Your task to perform on an android device: Toggle the flashlight Image 0: 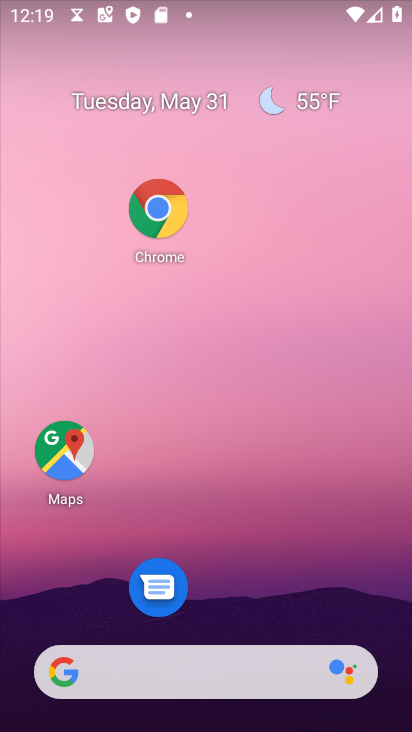
Step 0: click (242, 179)
Your task to perform on an android device: Toggle the flashlight Image 1: 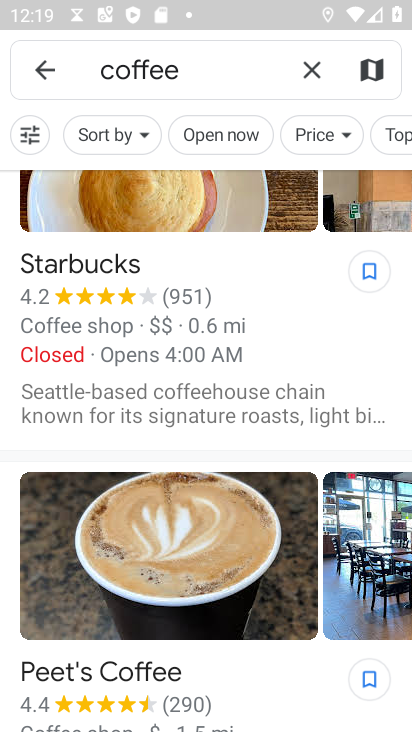
Step 1: press home button
Your task to perform on an android device: Toggle the flashlight Image 2: 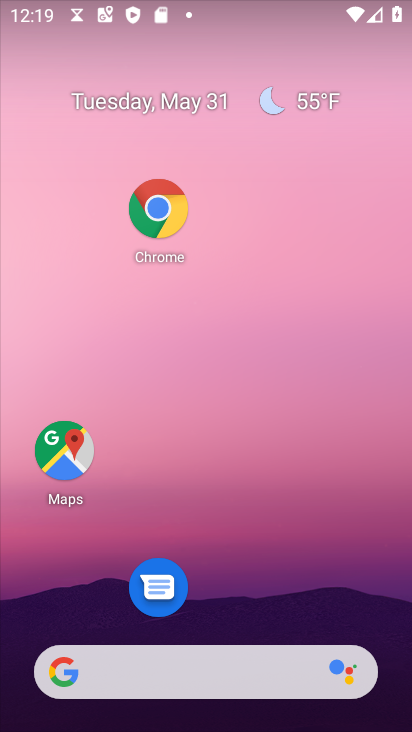
Step 2: drag from (232, 588) to (234, 230)
Your task to perform on an android device: Toggle the flashlight Image 3: 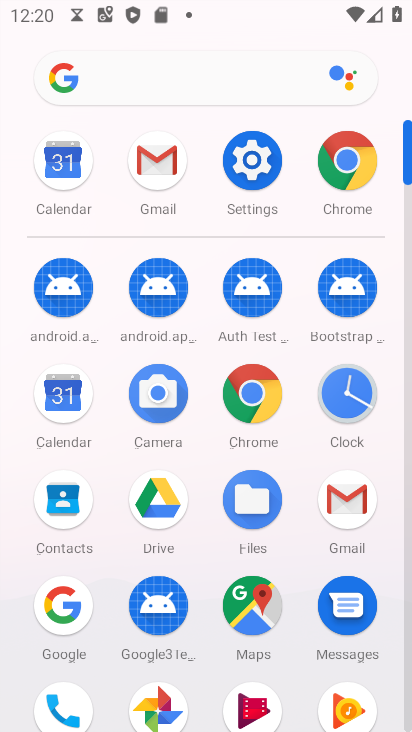
Step 3: click (246, 144)
Your task to perform on an android device: Toggle the flashlight Image 4: 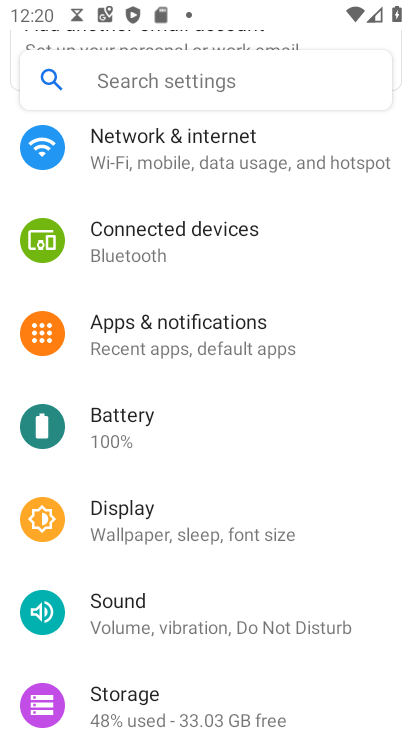
Step 4: click (104, 85)
Your task to perform on an android device: Toggle the flashlight Image 5: 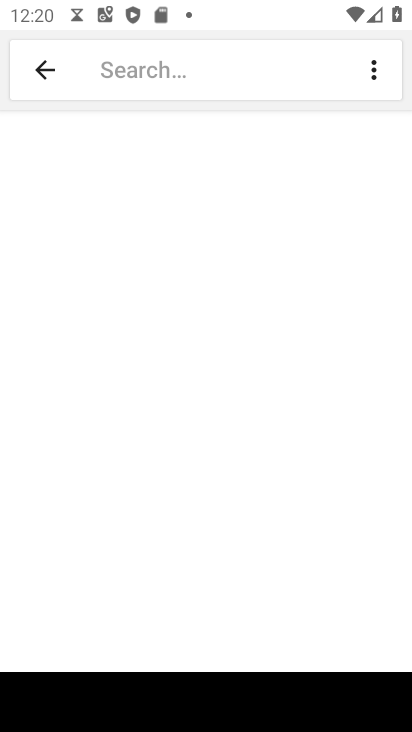
Step 5: type "flashlight"
Your task to perform on an android device: Toggle the flashlight Image 6: 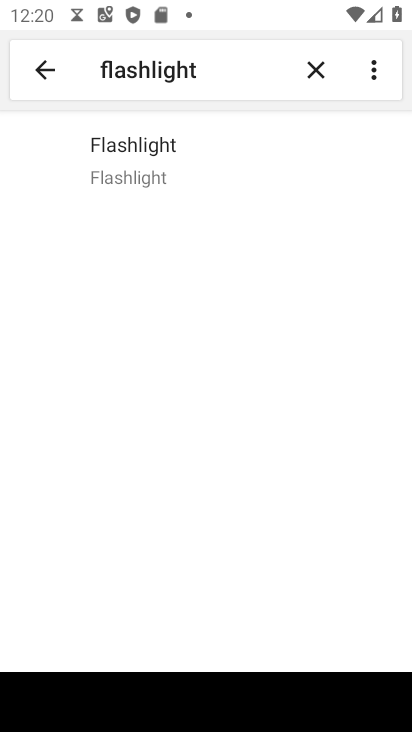
Step 6: click (172, 173)
Your task to perform on an android device: Toggle the flashlight Image 7: 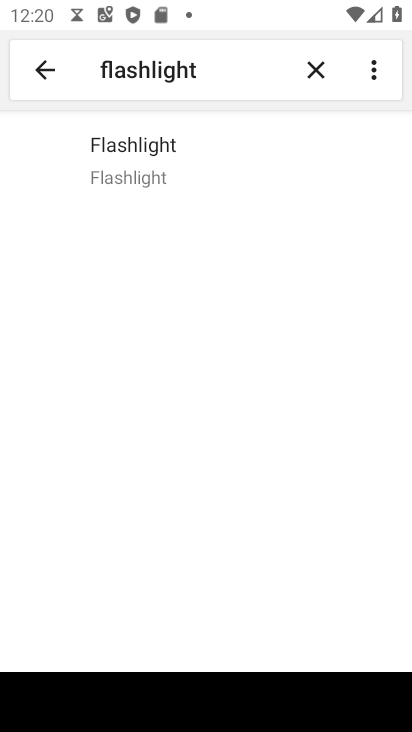
Step 7: click (172, 173)
Your task to perform on an android device: Toggle the flashlight Image 8: 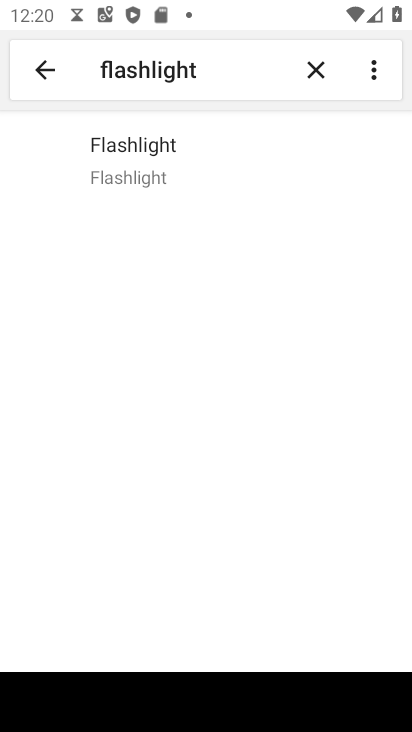
Step 8: click (172, 173)
Your task to perform on an android device: Toggle the flashlight Image 9: 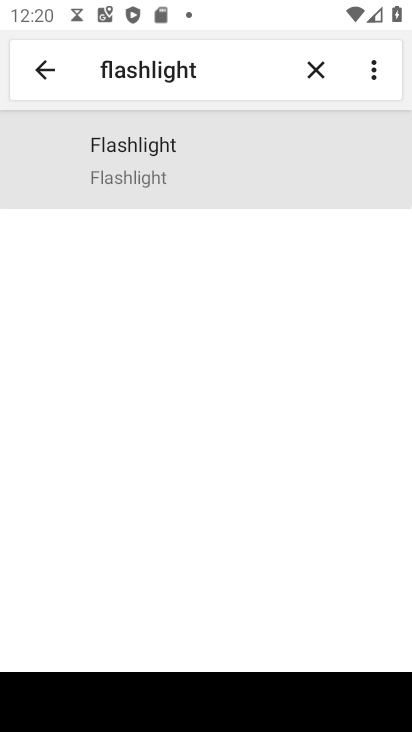
Step 9: click (172, 173)
Your task to perform on an android device: Toggle the flashlight Image 10: 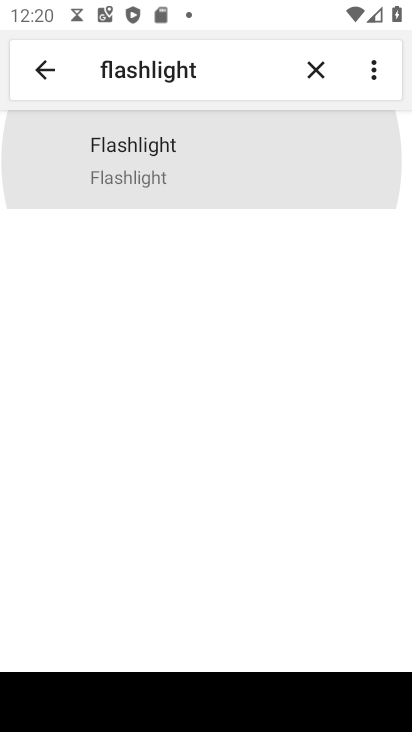
Step 10: click (172, 173)
Your task to perform on an android device: Toggle the flashlight Image 11: 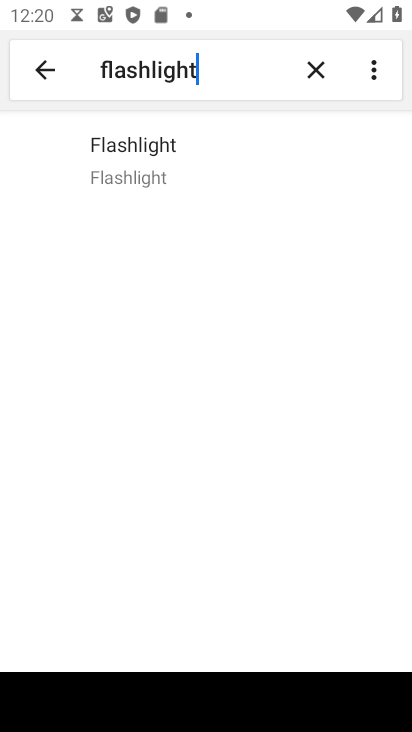
Step 11: task complete